Your task to perform on an android device: Open eBay Image 0: 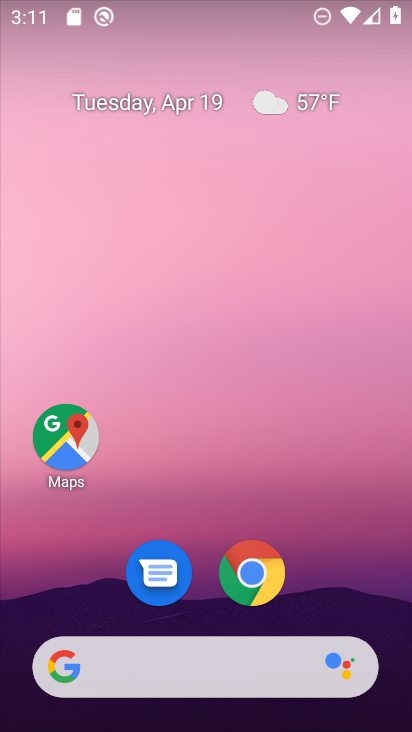
Step 0: click (258, 576)
Your task to perform on an android device: Open eBay Image 1: 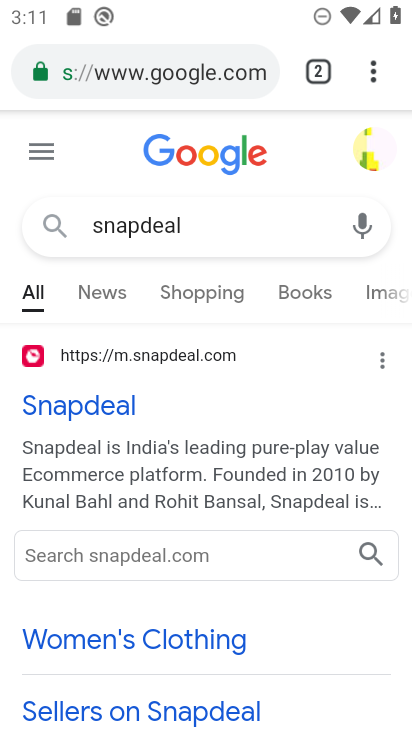
Step 1: click (371, 69)
Your task to perform on an android device: Open eBay Image 2: 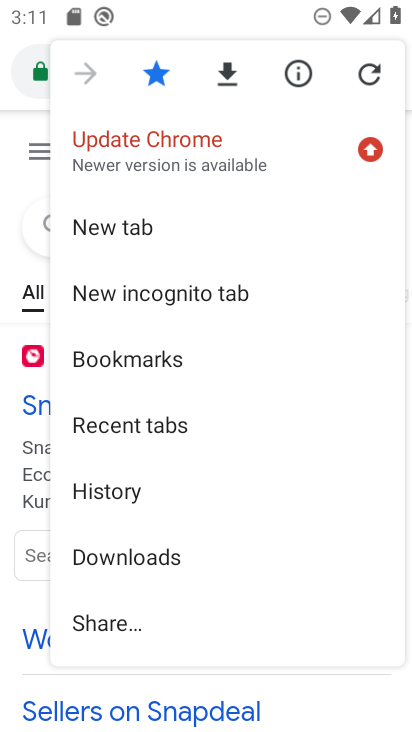
Step 2: click (119, 228)
Your task to perform on an android device: Open eBay Image 3: 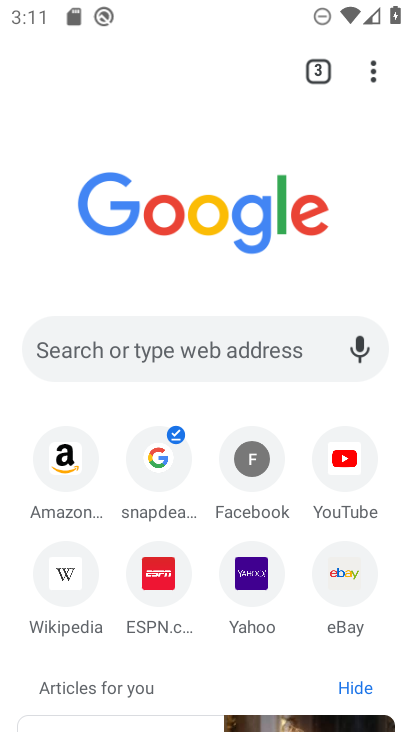
Step 3: click (340, 559)
Your task to perform on an android device: Open eBay Image 4: 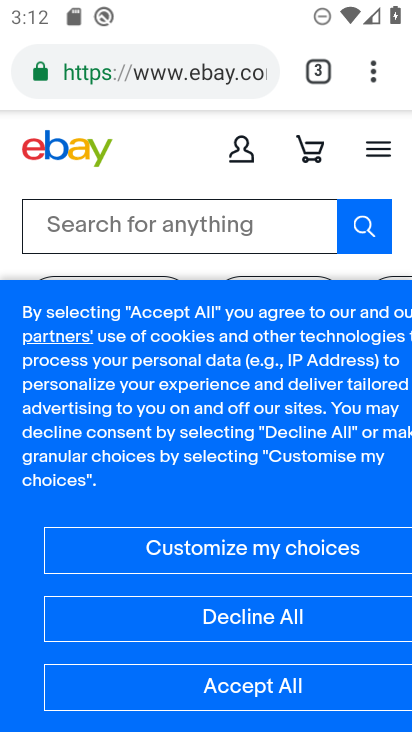
Step 4: task complete